Your task to perform on an android device: turn off wifi Image 0: 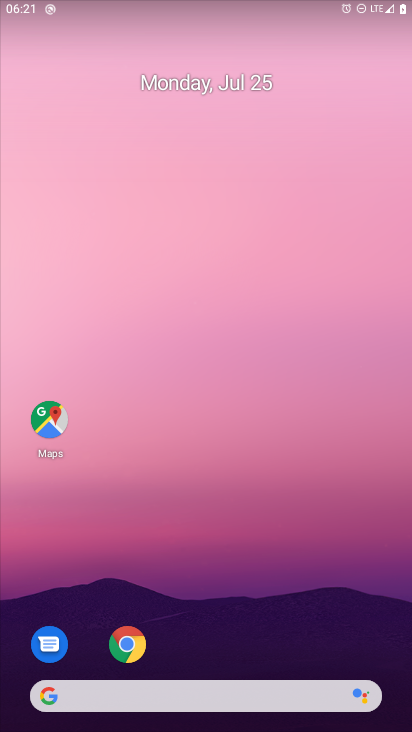
Step 0: drag from (200, 6) to (181, 588)
Your task to perform on an android device: turn off wifi Image 1: 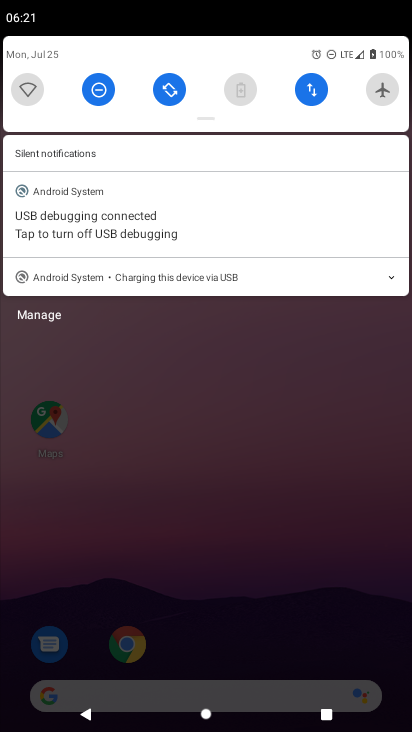
Step 1: task complete